Your task to perform on an android device: Open Maps and search for coffee Image 0: 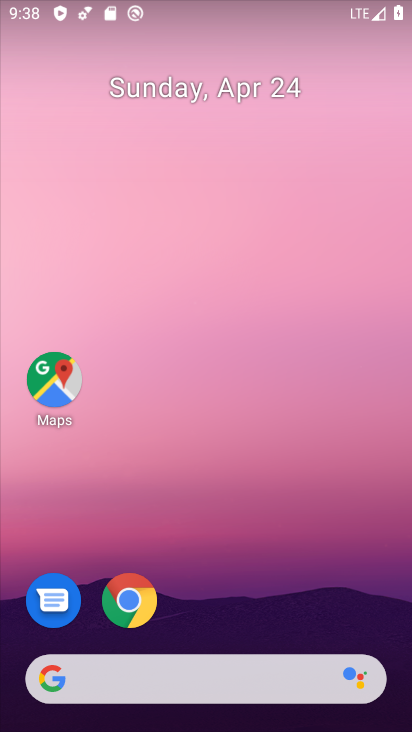
Step 0: click (62, 375)
Your task to perform on an android device: Open Maps and search for coffee Image 1: 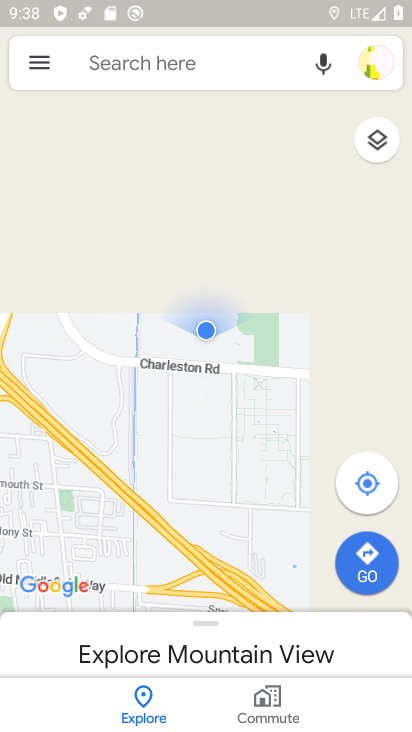
Step 1: click (165, 61)
Your task to perform on an android device: Open Maps and search for coffee Image 2: 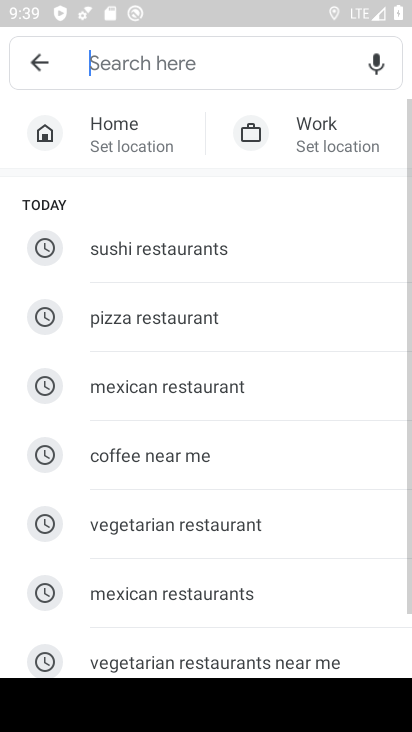
Step 2: type "coffee"
Your task to perform on an android device: Open Maps and search for coffee Image 3: 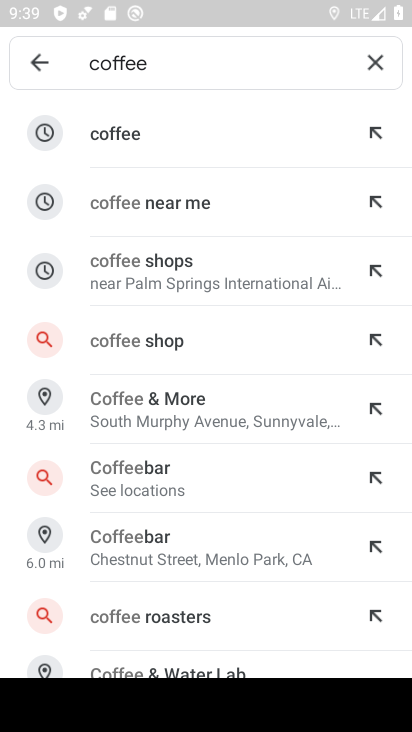
Step 3: click (195, 149)
Your task to perform on an android device: Open Maps and search for coffee Image 4: 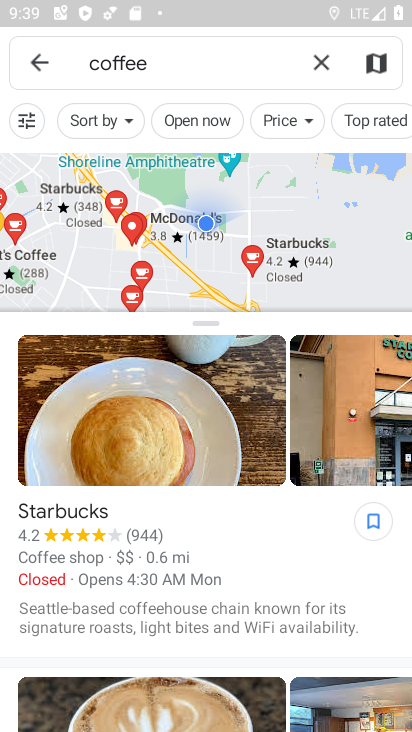
Step 4: task complete